Your task to perform on an android device: Clear the cart on bestbuy.com. Add "macbook air" to the cart on bestbuy.com Image 0: 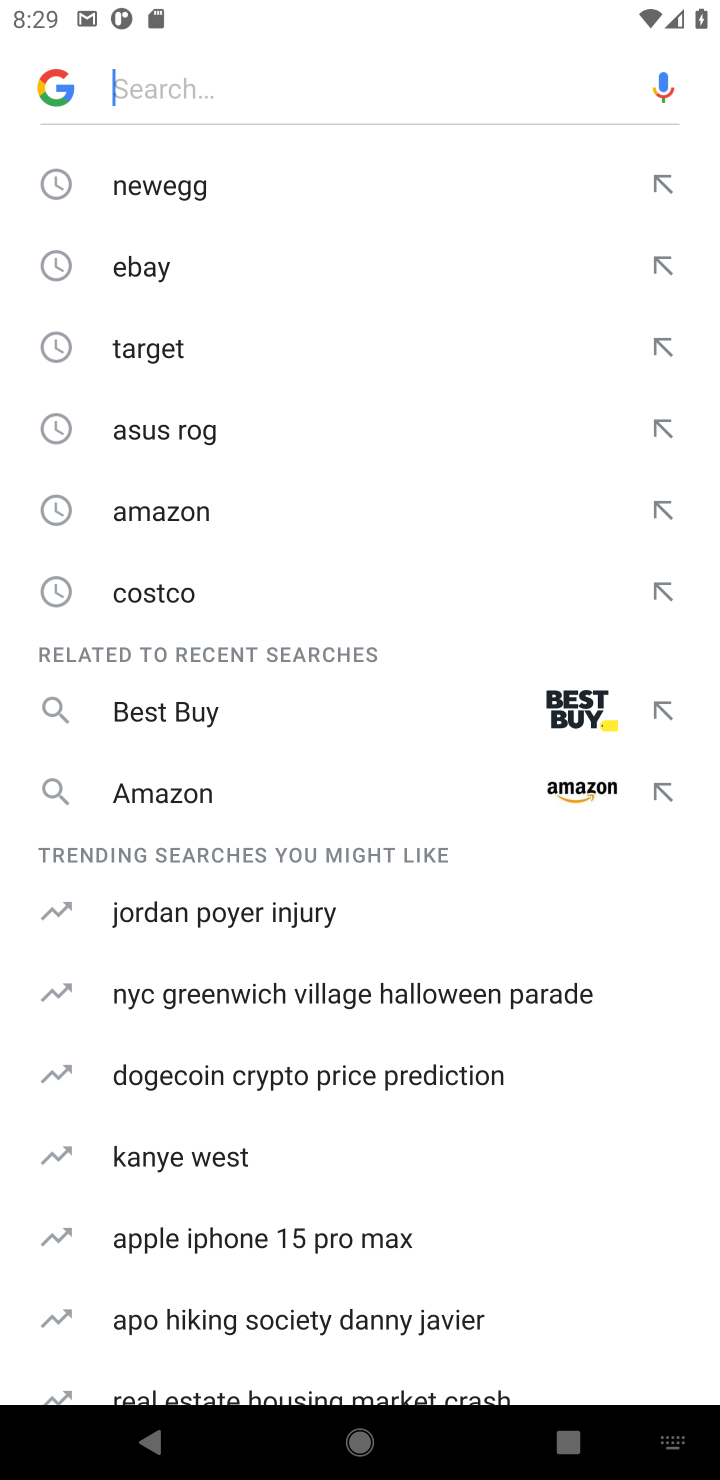
Step 0: click (143, 700)
Your task to perform on an android device: Clear the cart on bestbuy.com. Add "macbook air" to the cart on bestbuy.com Image 1: 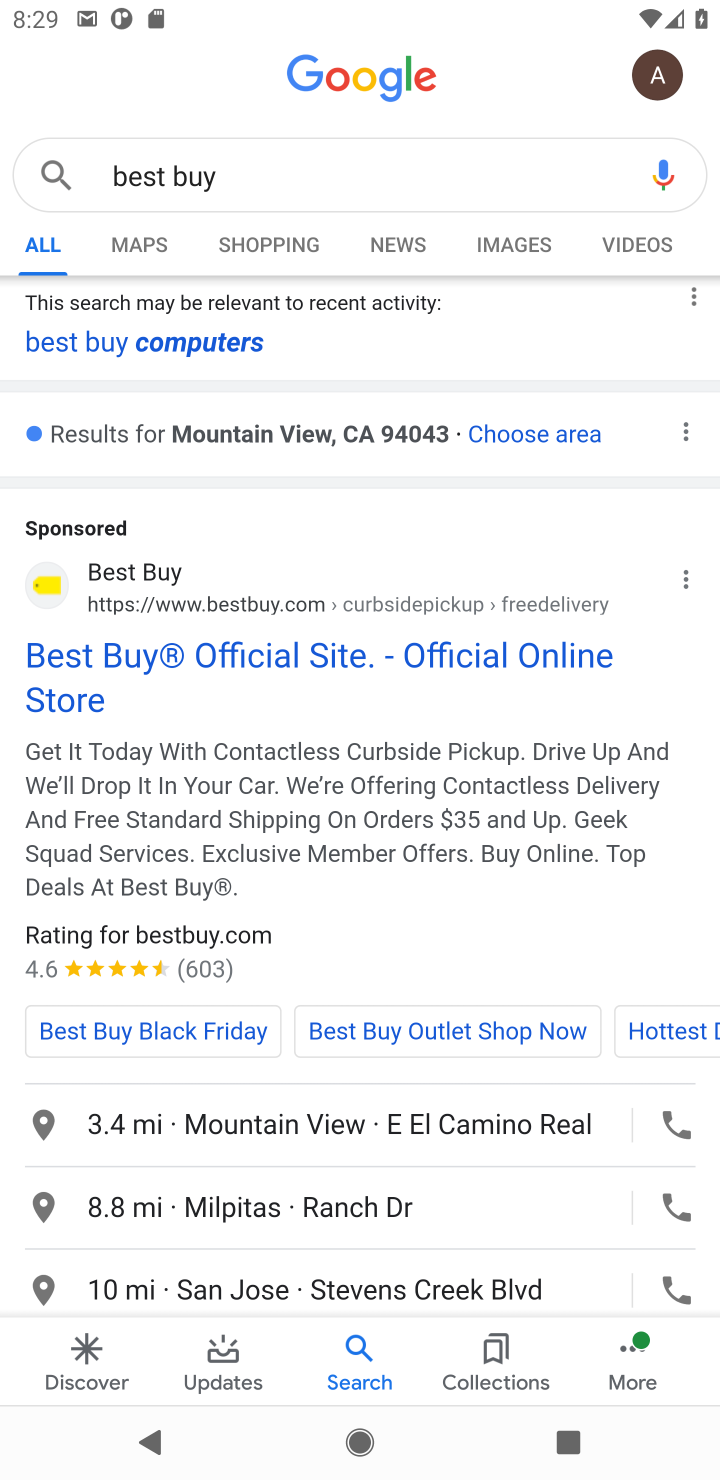
Step 1: click (141, 674)
Your task to perform on an android device: Clear the cart on bestbuy.com. Add "macbook air" to the cart on bestbuy.com Image 2: 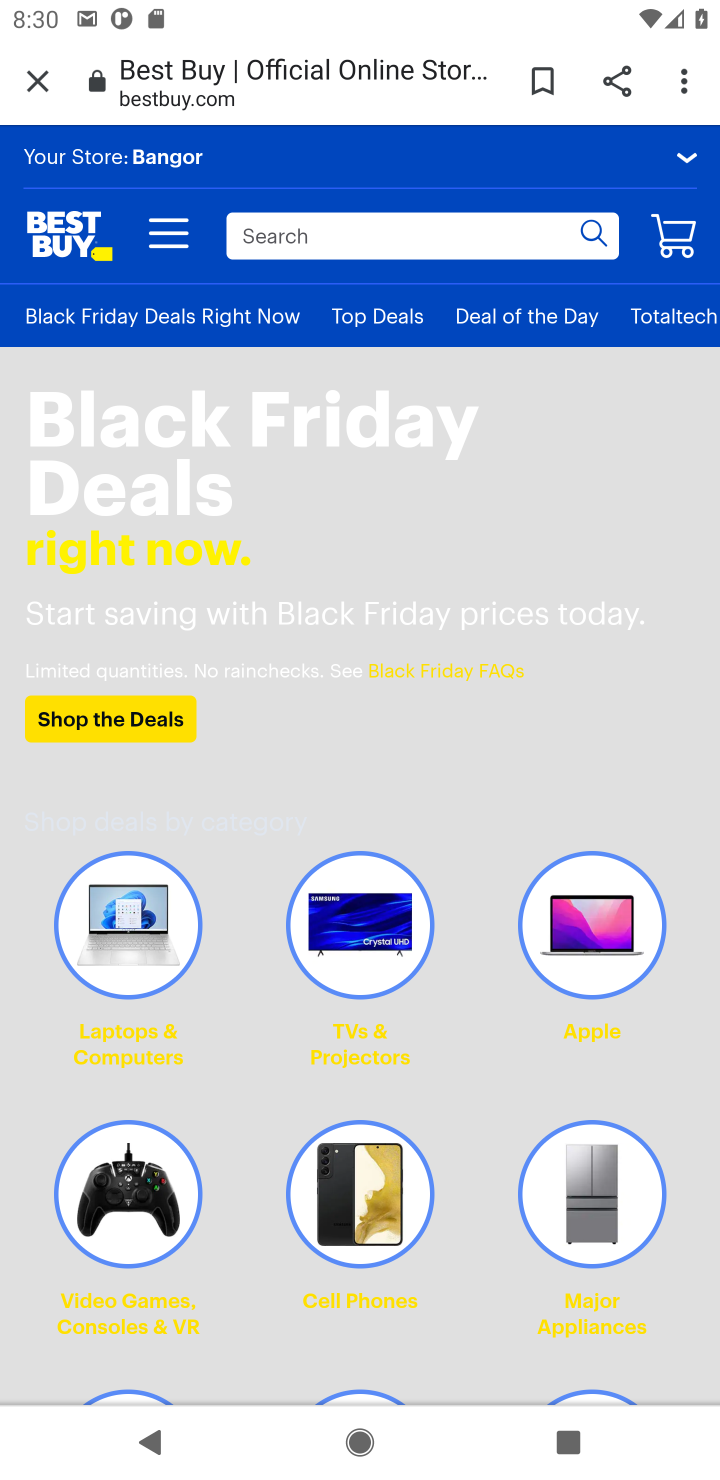
Step 2: click (691, 221)
Your task to perform on an android device: Clear the cart on bestbuy.com. Add "macbook air" to the cart on bestbuy.com Image 3: 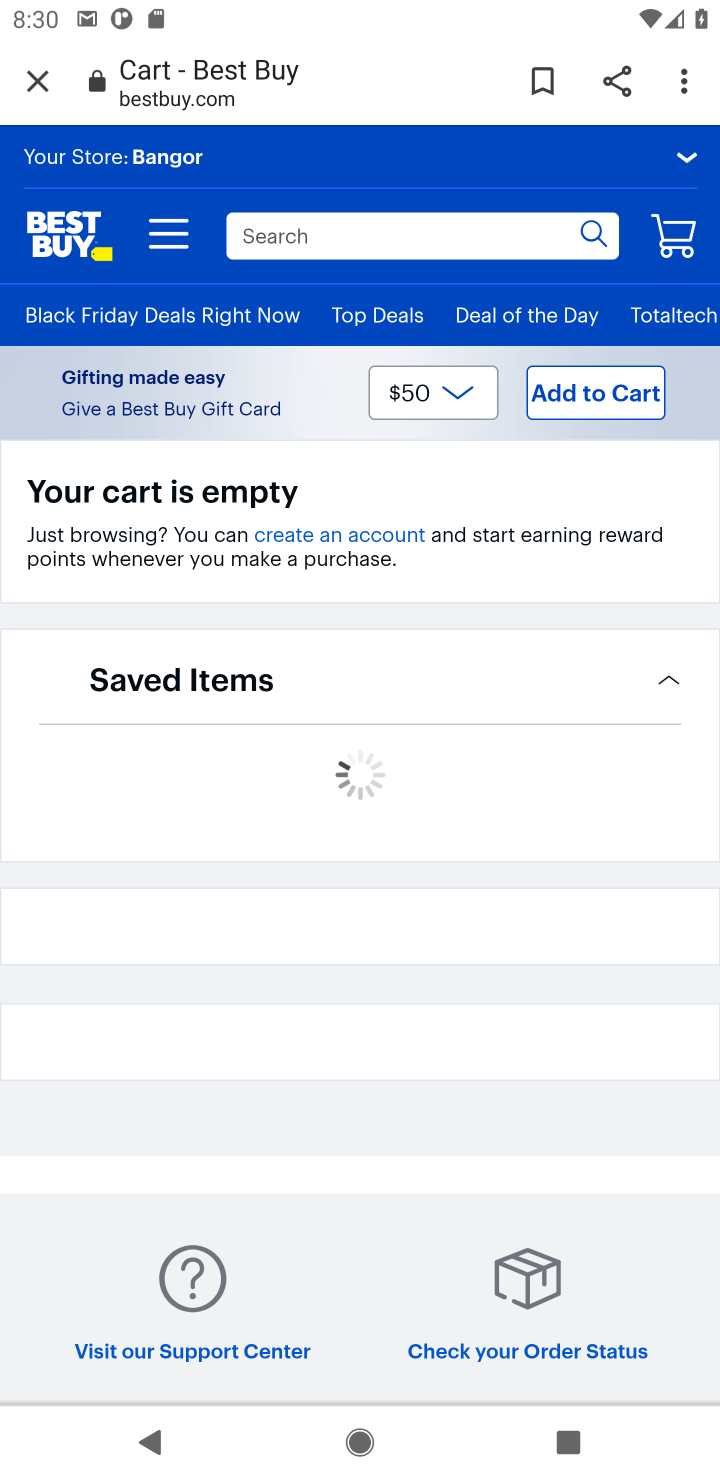
Step 3: click (367, 245)
Your task to perform on an android device: Clear the cart on bestbuy.com. Add "macbook air" to the cart on bestbuy.com Image 4: 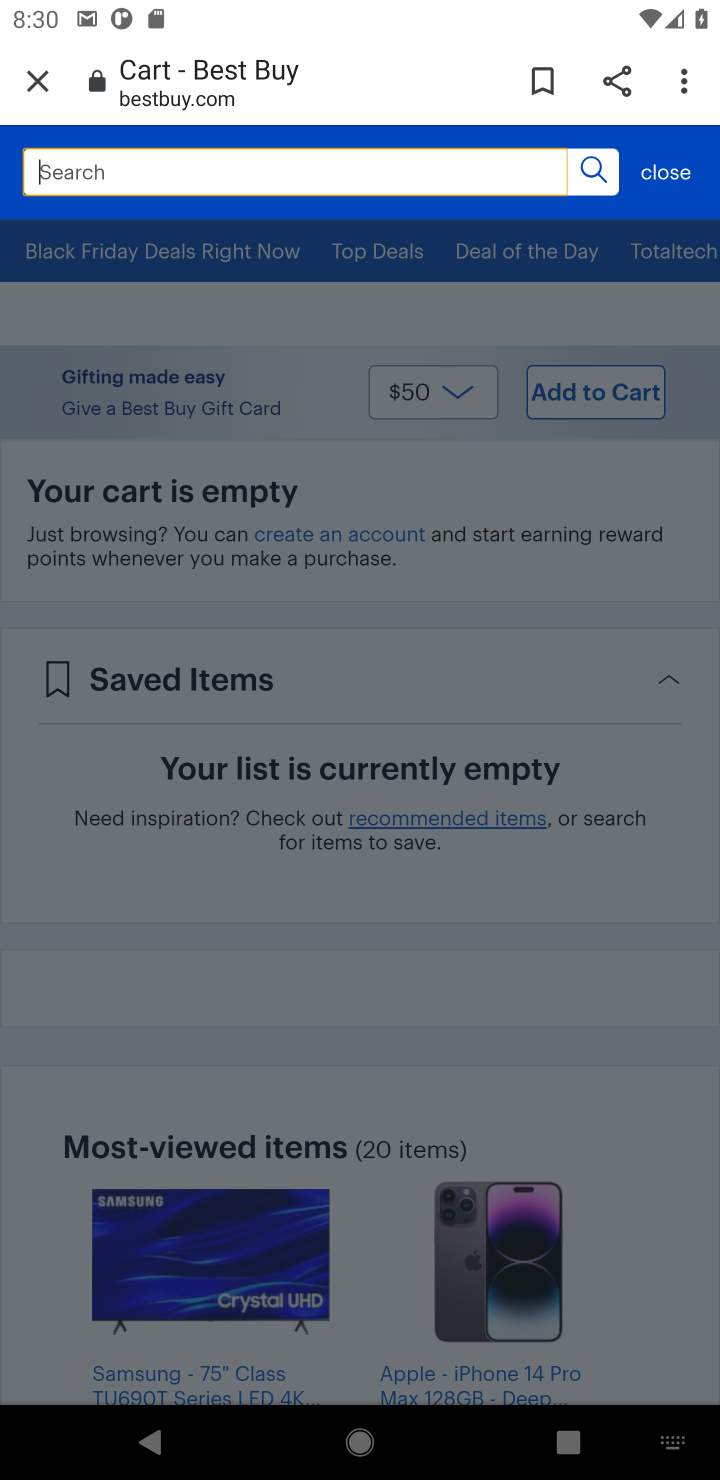
Step 4: type "macbook air"
Your task to perform on an android device: Clear the cart on bestbuy.com. Add "macbook air" to the cart on bestbuy.com Image 5: 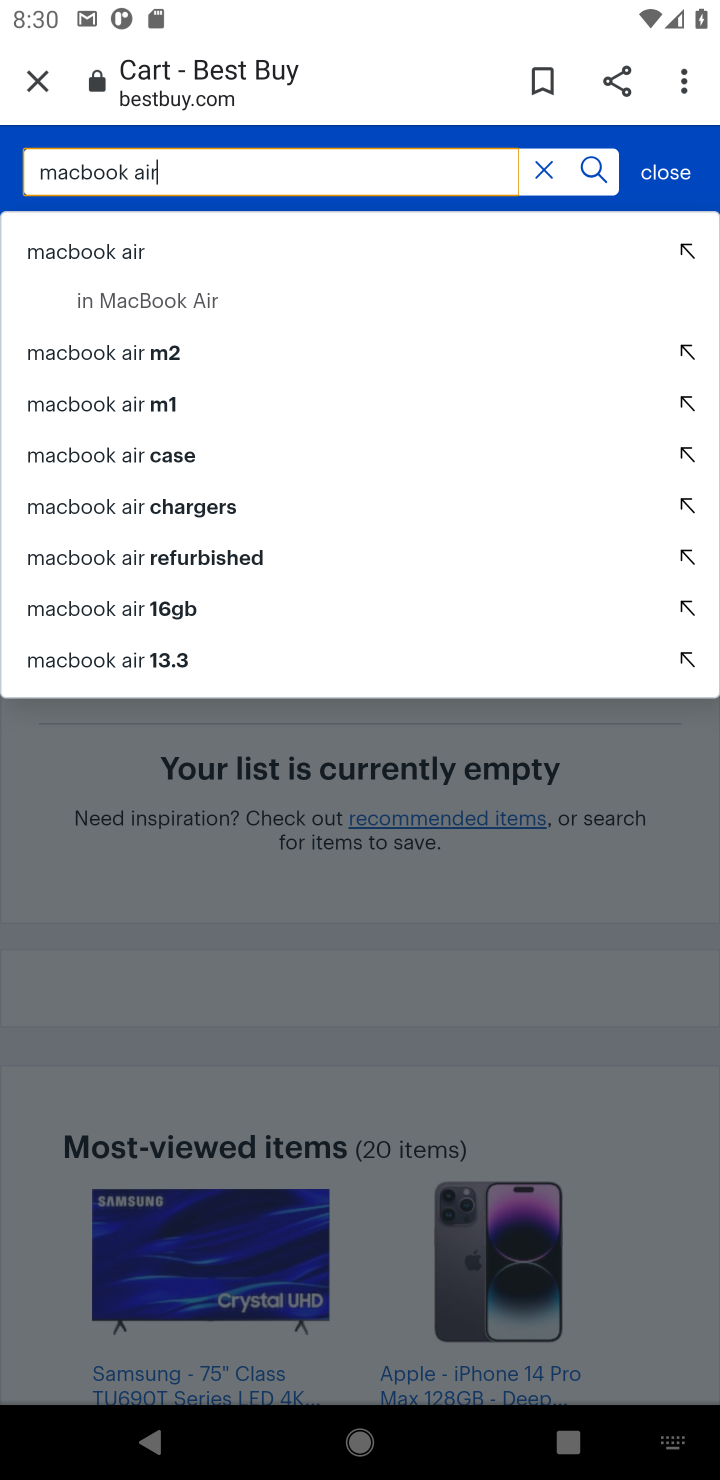
Step 5: click (111, 256)
Your task to perform on an android device: Clear the cart on bestbuy.com. Add "macbook air" to the cart on bestbuy.com Image 6: 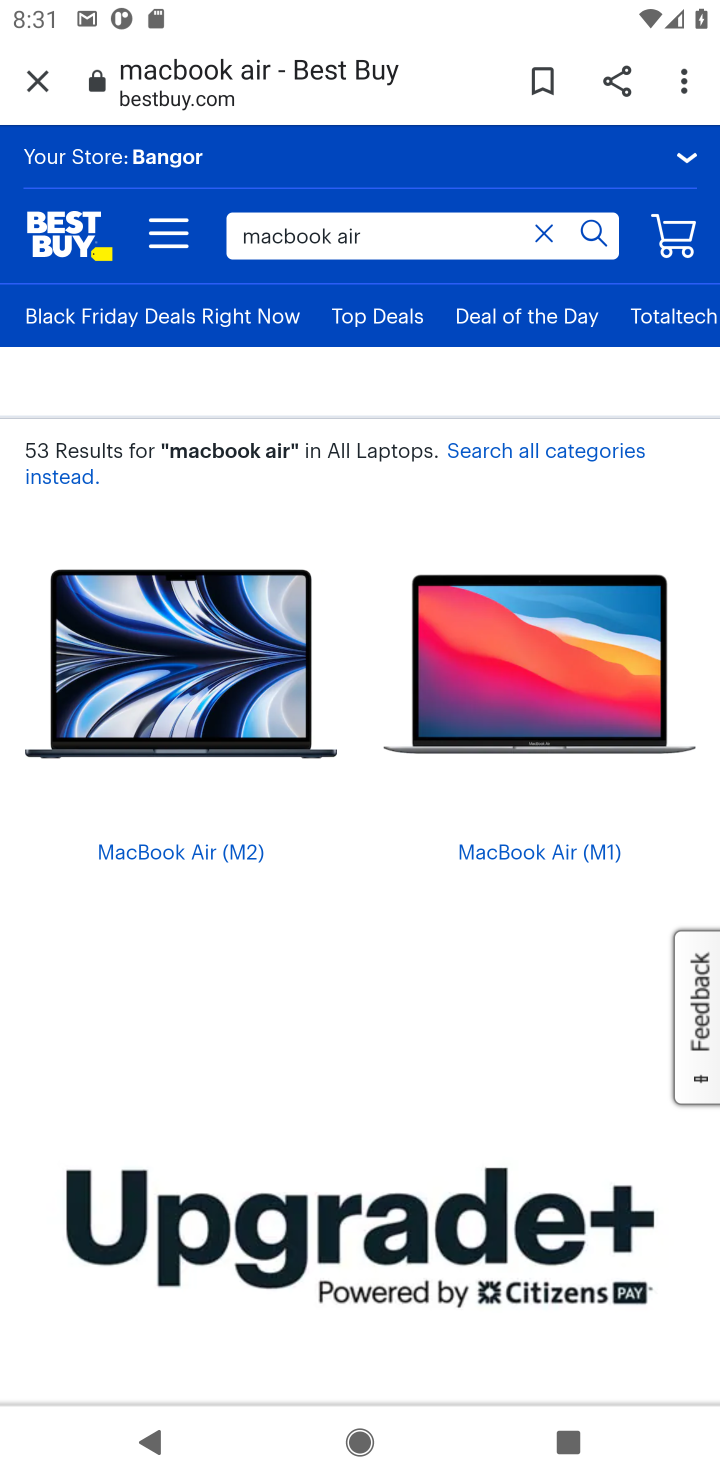
Step 6: click (177, 752)
Your task to perform on an android device: Clear the cart on bestbuy.com. Add "macbook air" to the cart on bestbuy.com Image 7: 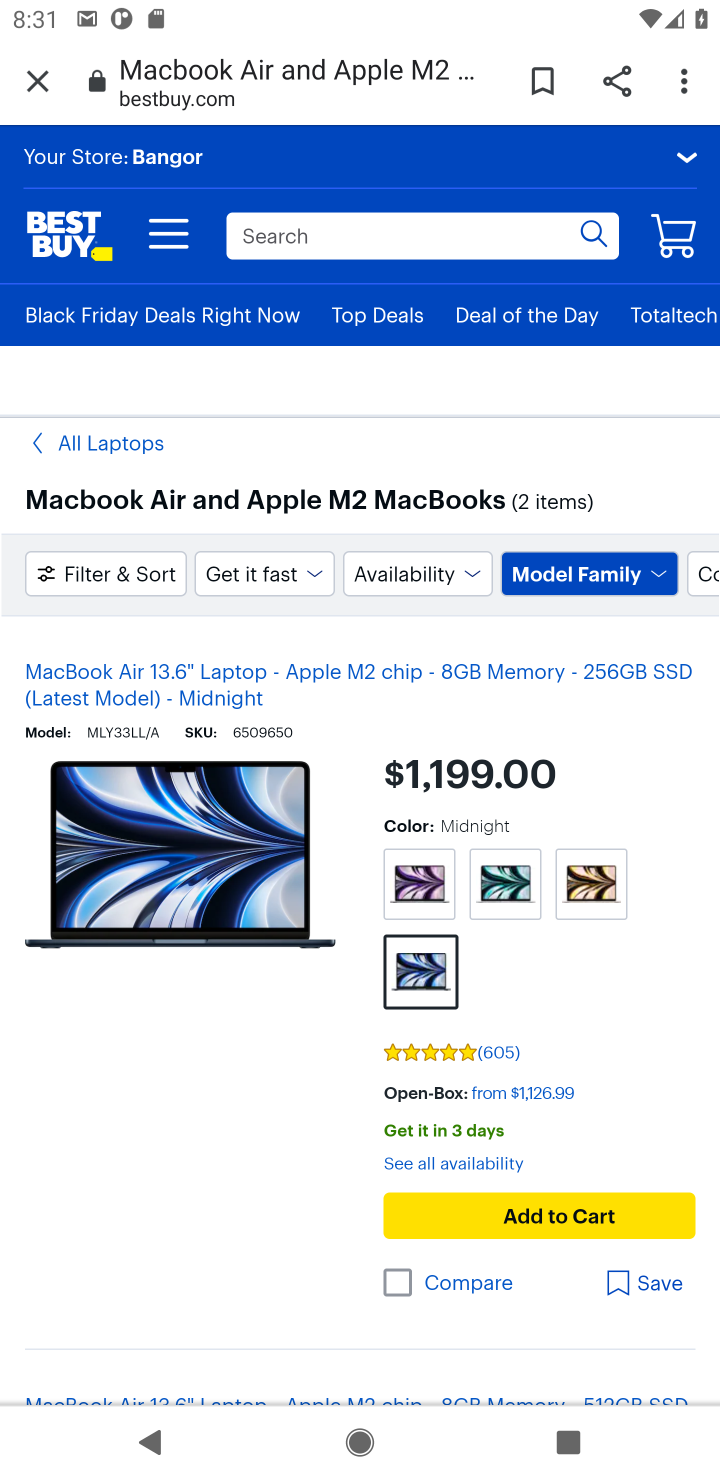
Step 7: click (470, 1216)
Your task to perform on an android device: Clear the cart on bestbuy.com. Add "macbook air" to the cart on bestbuy.com Image 8: 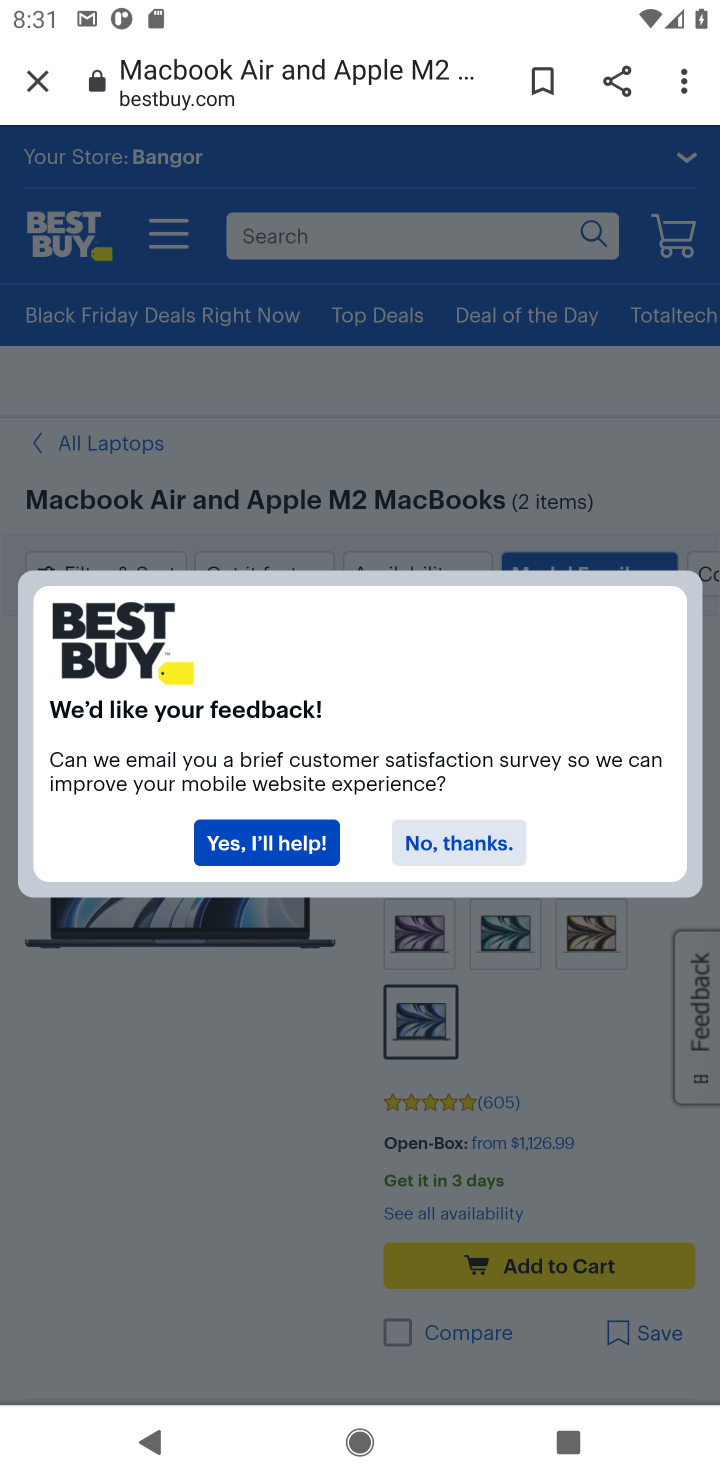
Step 8: click (503, 840)
Your task to perform on an android device: Clear the cart on bestbuy.com. Add "macbook air" to the cart on bestbuy.com Image 9: 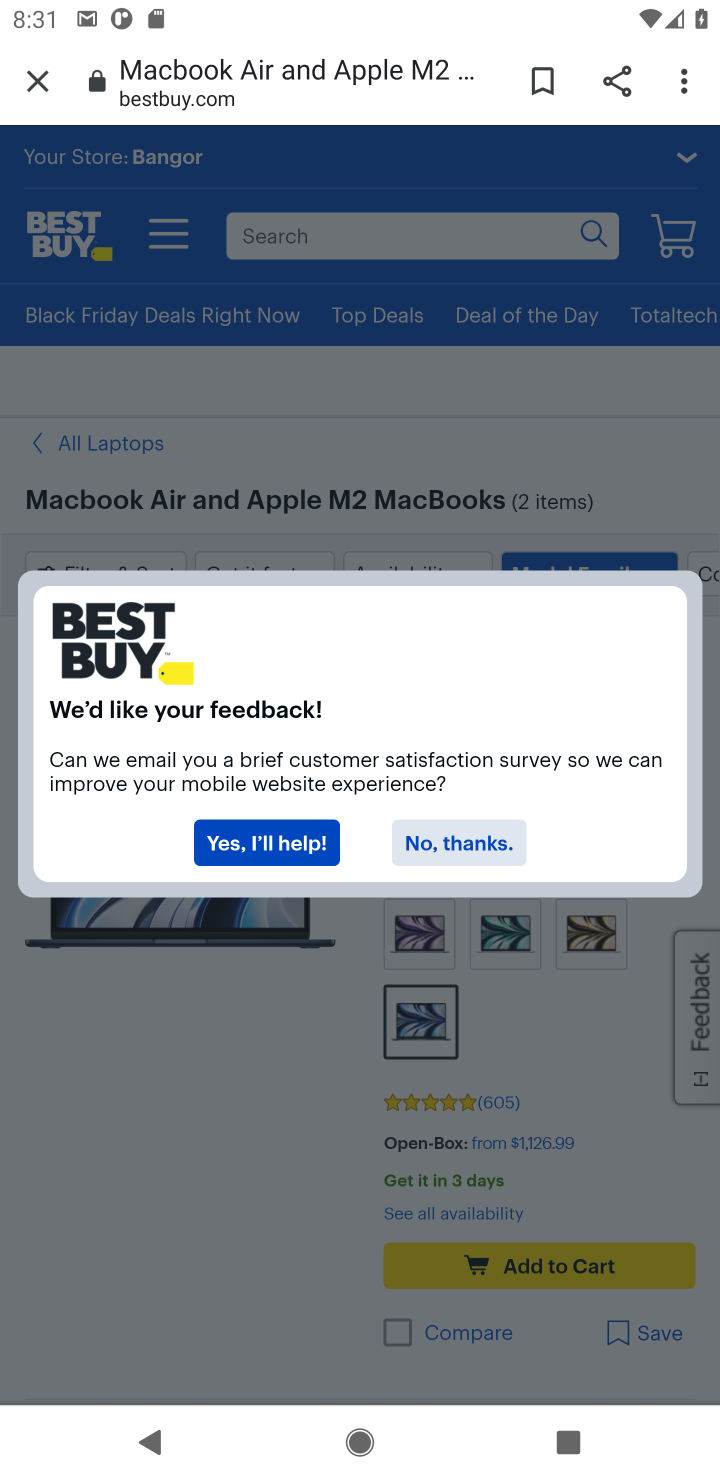
Step 9: click (486, 846)
Your task to perform on an android device: Clear the cart on bestbuy.com. Add "macbook air" to the cart on bestbuy.com Image 10: 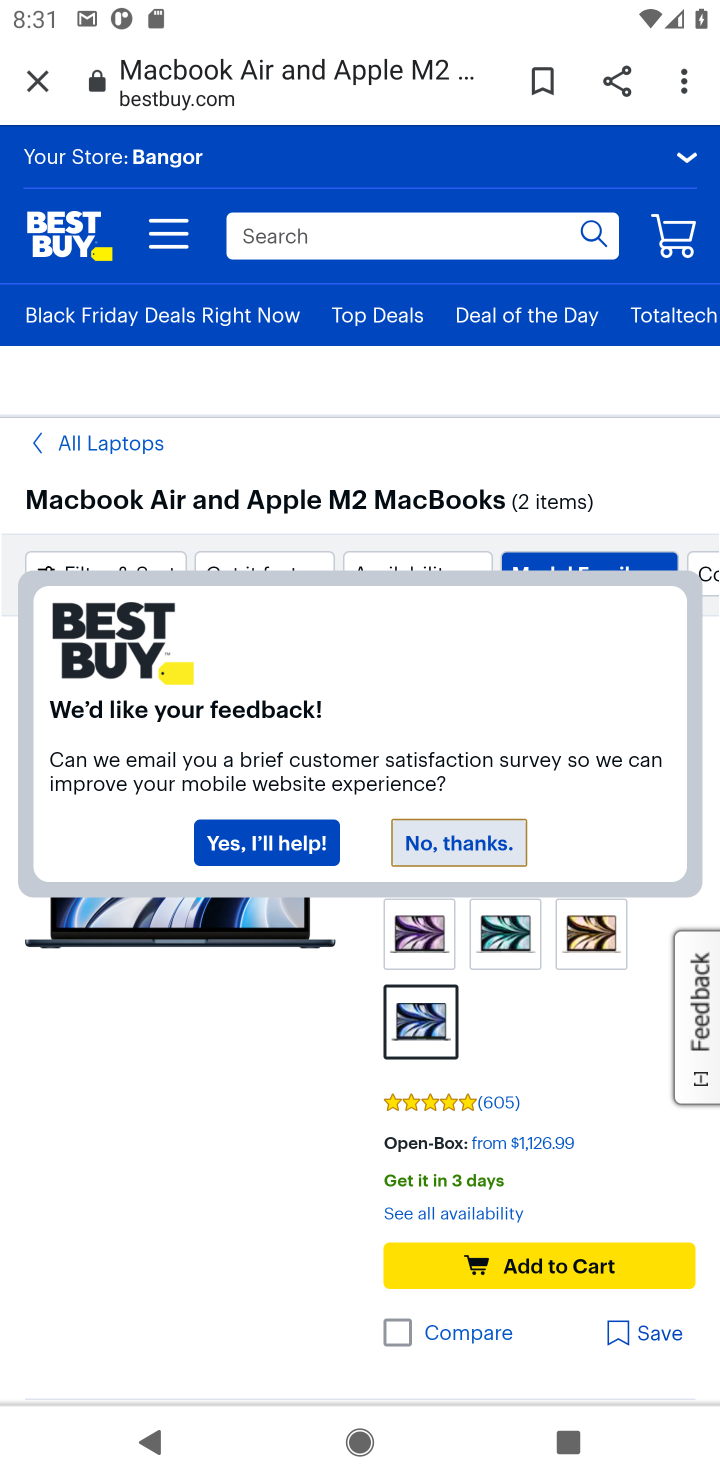
Step 10: click (486, 846)
Your task to perform on an android device: Clear the cart on bestbuy.com. Add "macbook air" to the cart on bestbuy.com Image 11: 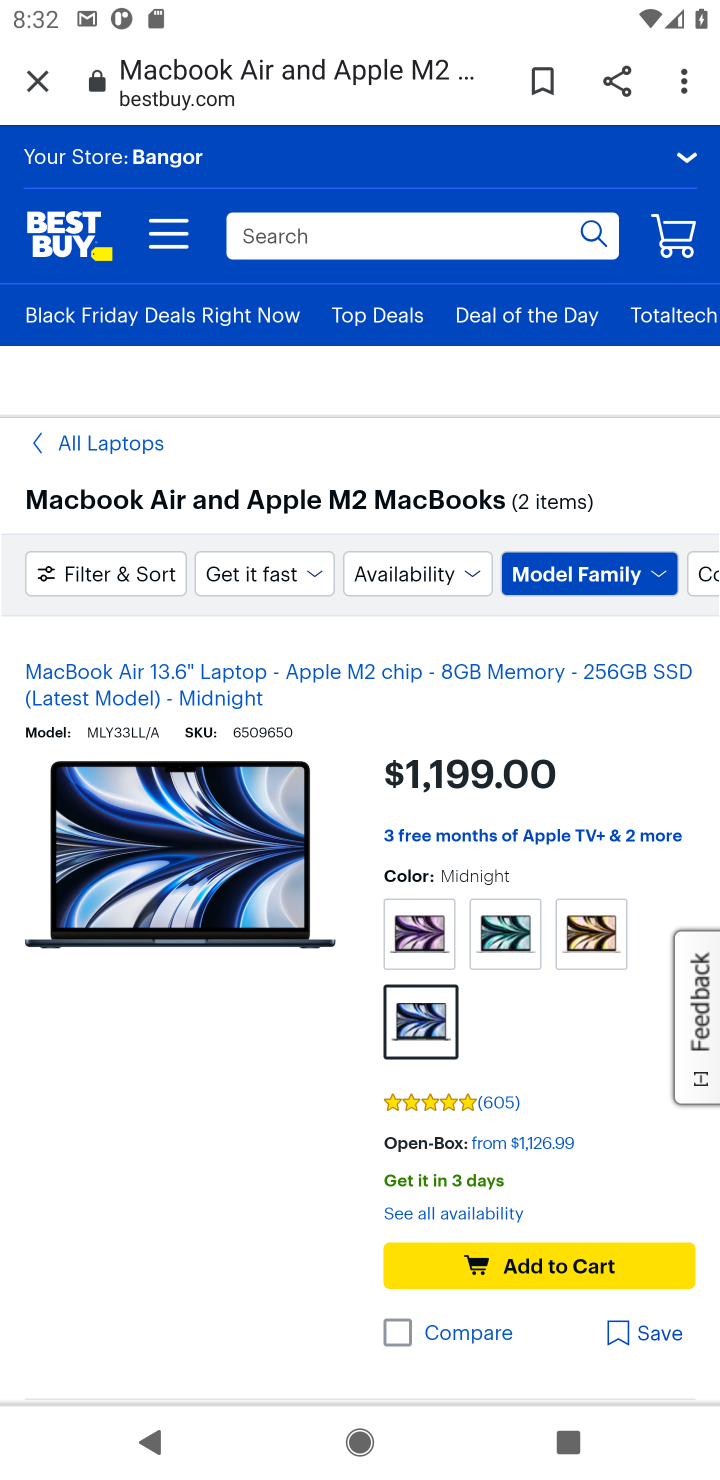
Step 11: click (432, 1275)
Your task to perform on an android device: Clear the cart on bestbuy.com. Add "macbook air" to the cart on bestbuy.com Image 12: 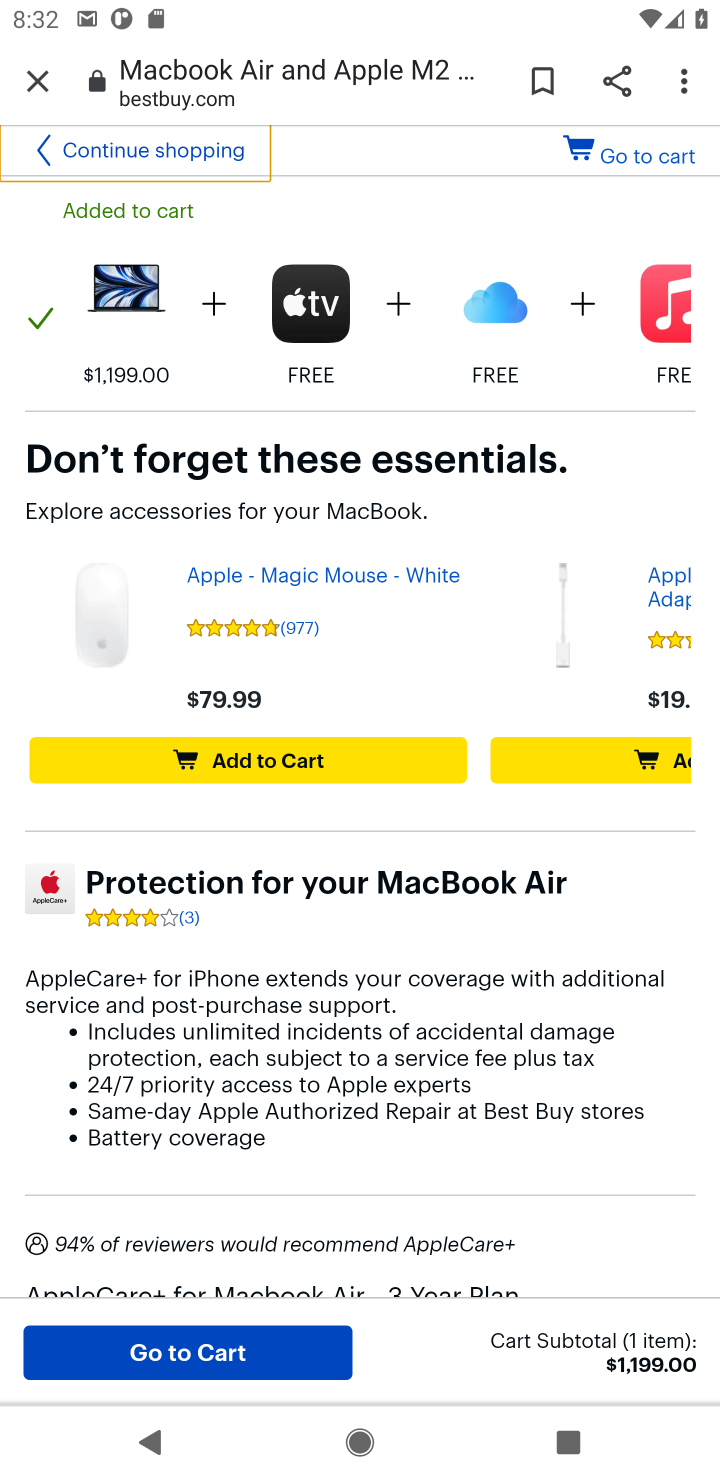
Step 12: task complete